Your task to perform on an android device: open app "Google Drive" (install if not already installed) Image 0: 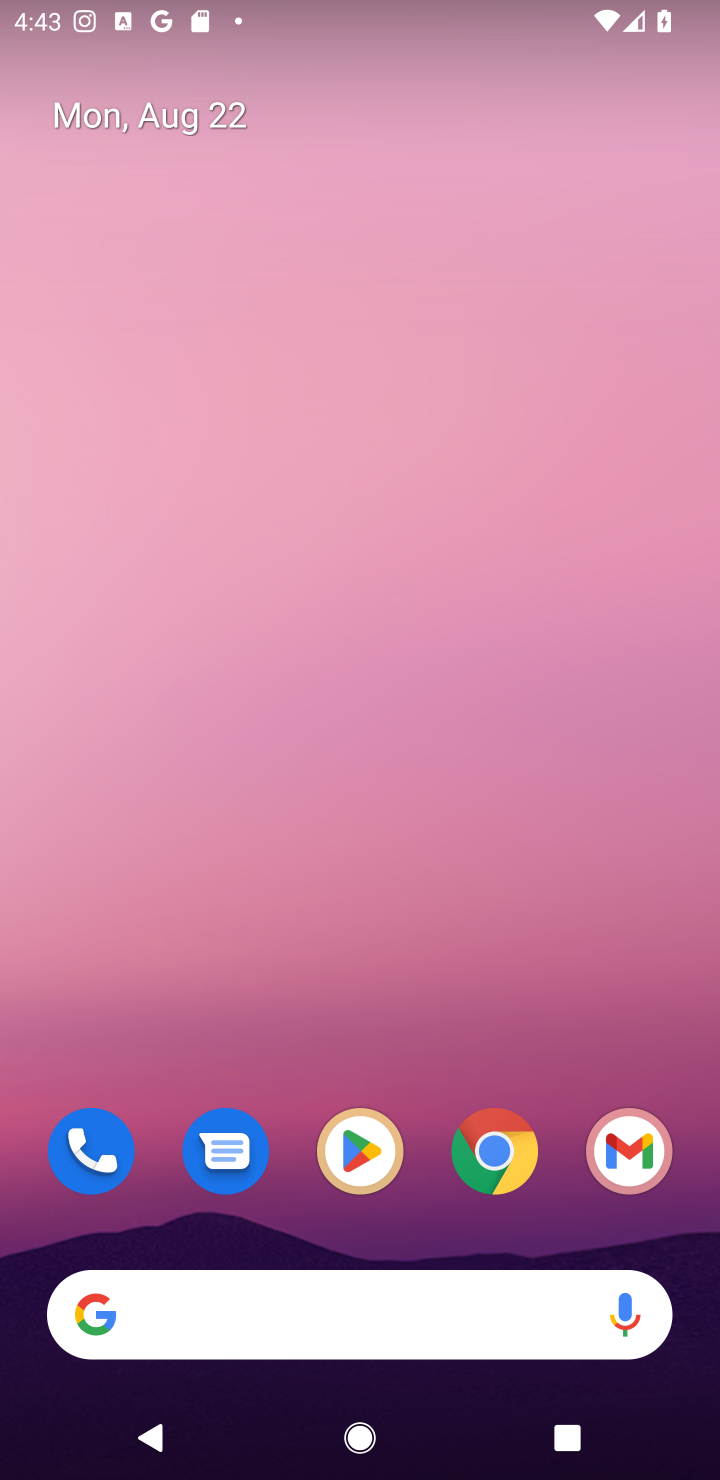
Step 0: press home button
Your task to perform on an android device: open app "Google Drive" (install if not already installed) Image 1: 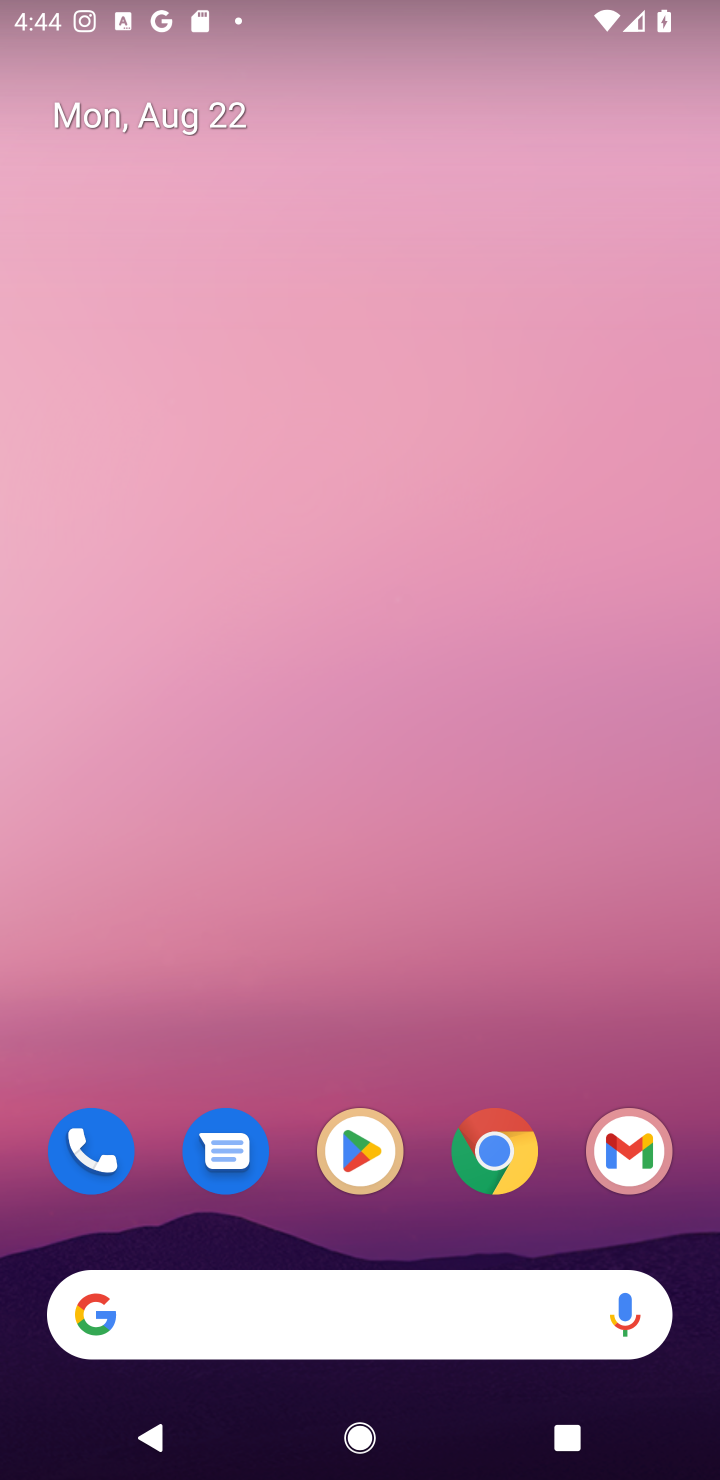
Step 1: click (342, 1157)
Your task to perform on an android device: open app "Google Drive" (install if not already installed) Image 2: 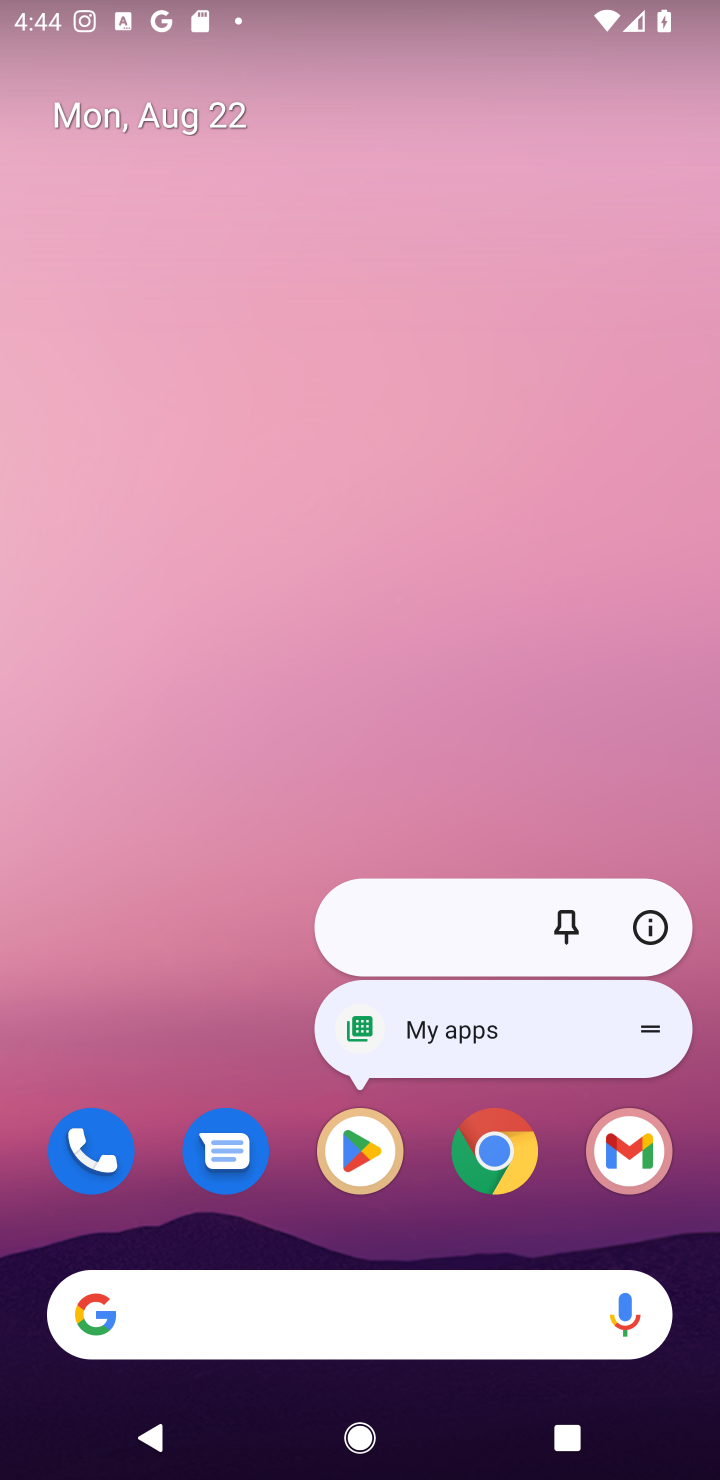
Step 2: click (354, 1155)
Your task to perform on an android device: open app "Google Drive" (install if not already installed) Image 3: 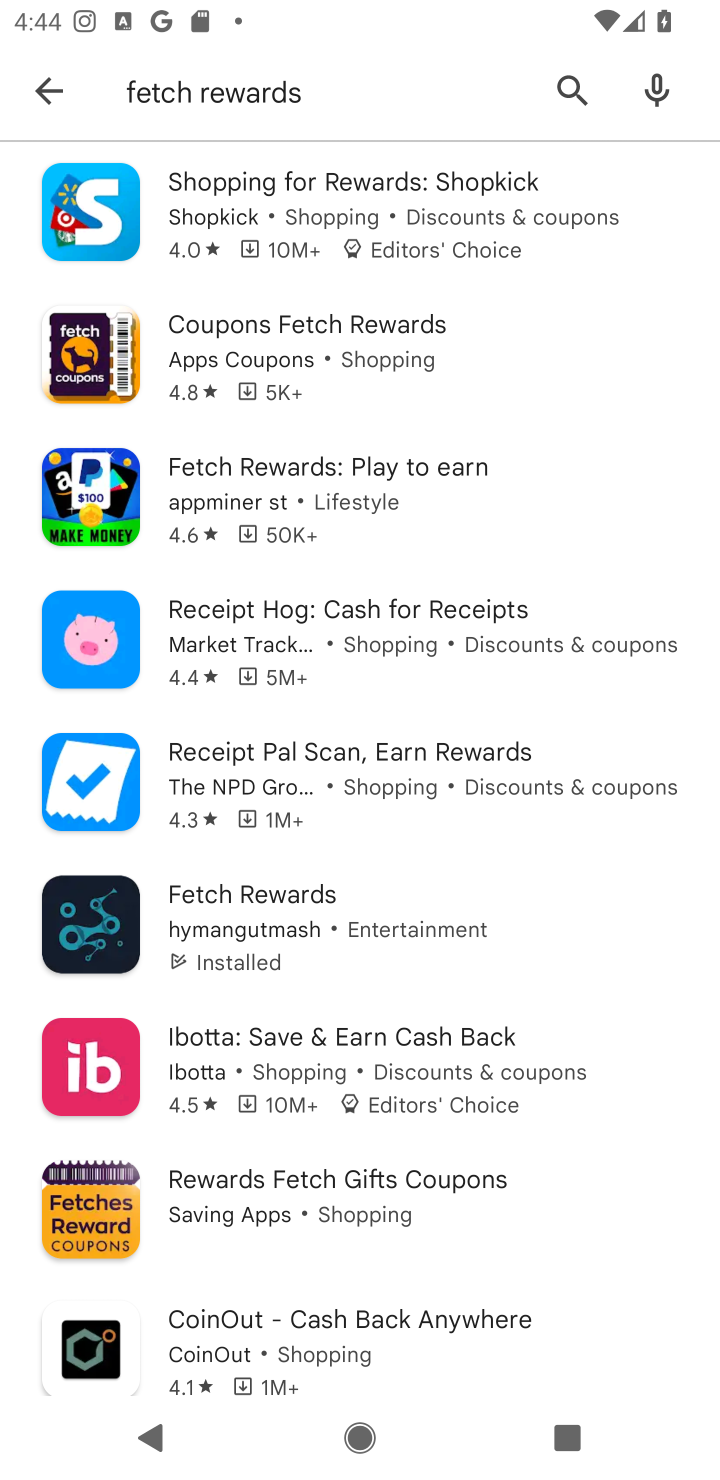
Step 3: click (566, 77)
Your task to perform on an android device: open app "Google Drive" (install if not already installed) Image 4: 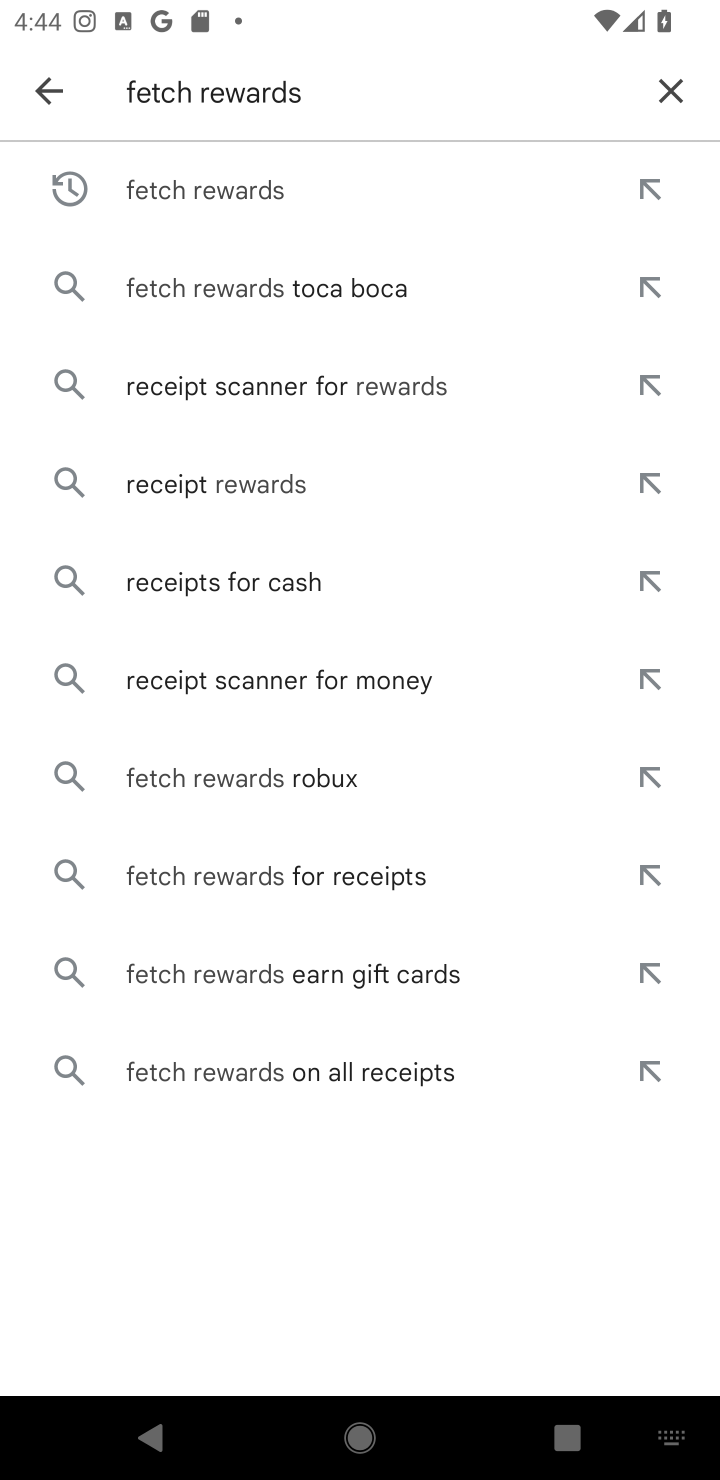
Step 4: click (666, 81)
Your task to perform on an android device: open app "Google Drive" (install if not already installed) Image 5: 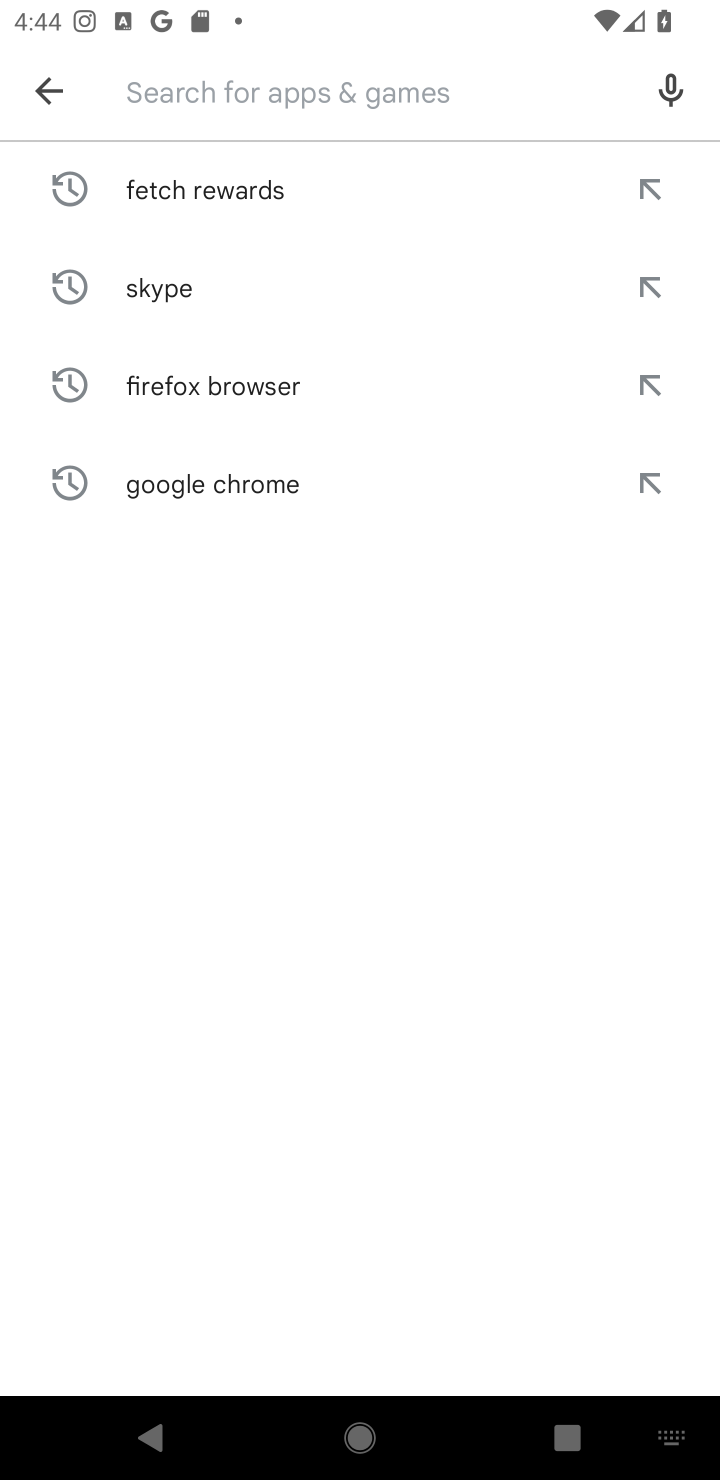
Step 5: type "Google Drive"
Your task to perform on an android device: open app "Google Drive" (install if not already installed) Image 6: 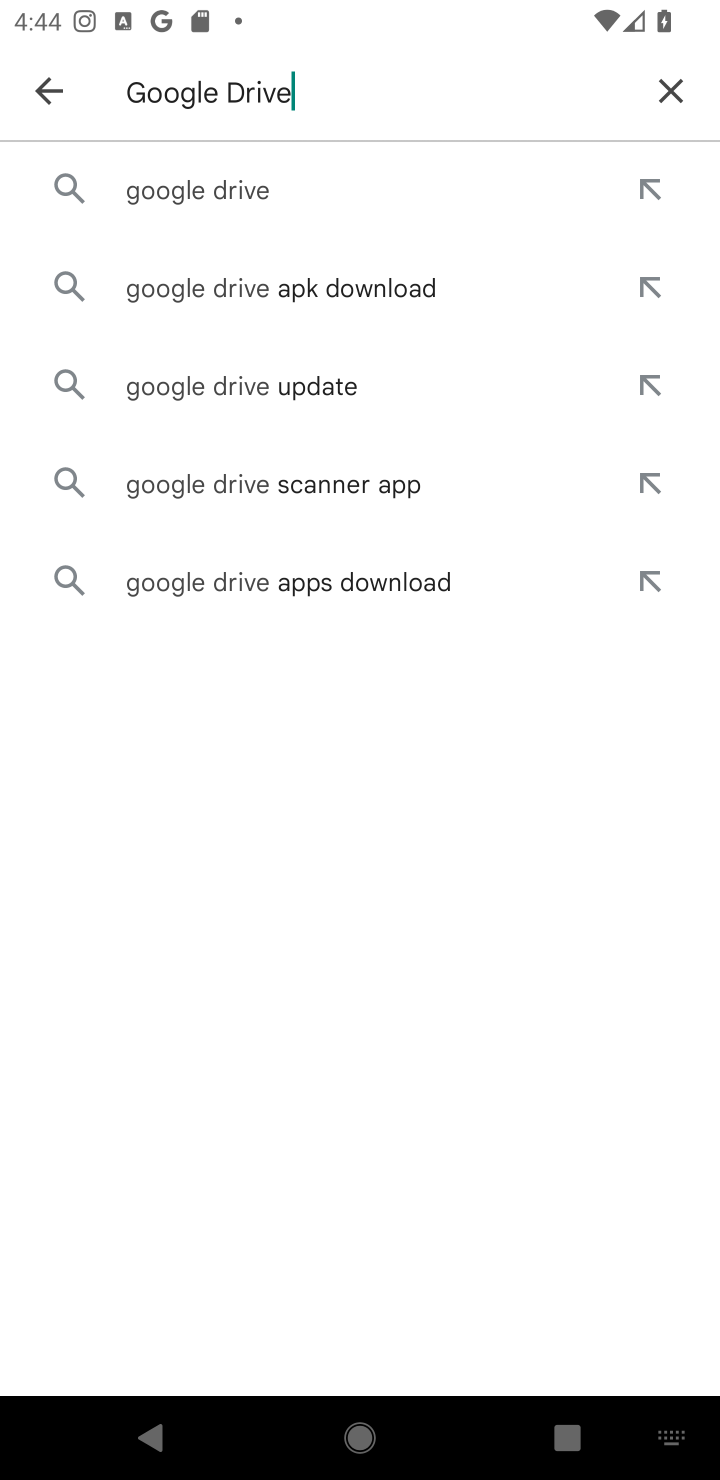
Step 6: click (228, 188)
Your task to perform on an android device: open app "Google Drive" (install if not already installed) Image 7: 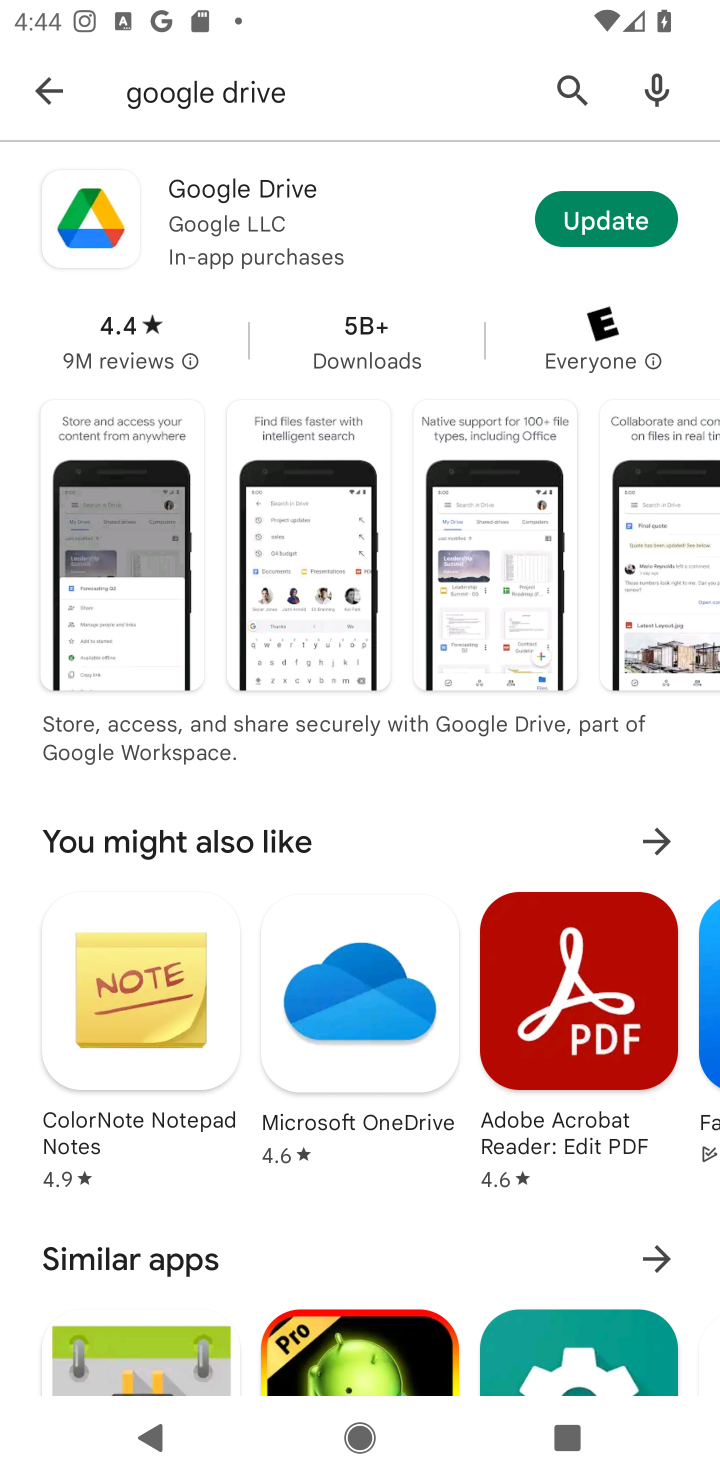
Step 7: click (104, 220)
Your task to perform on an android device: open app "Google Drive" (install if not already installed) Image 8: 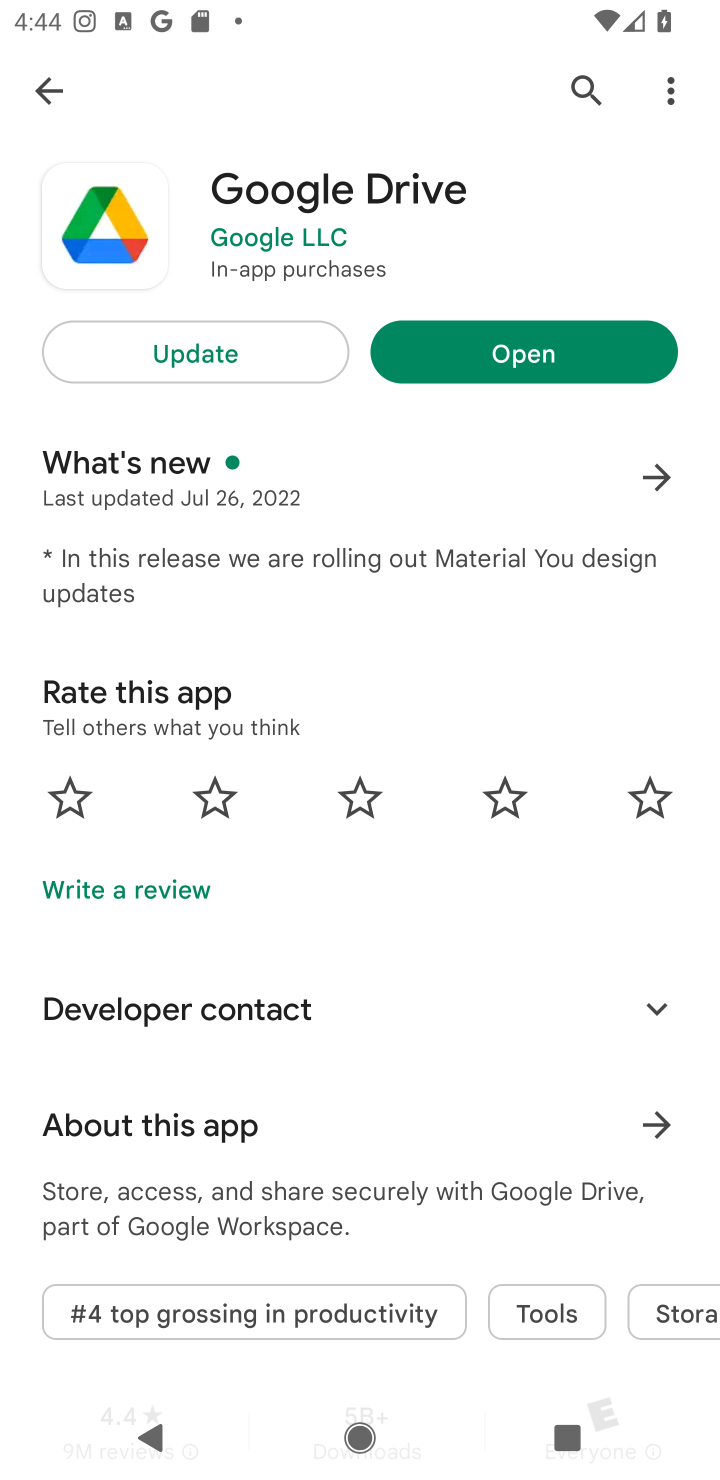
Step 8: click (528, 346)
Your task to perform on an android device: open app "Google Drive" (install if not already installed) Image 9: 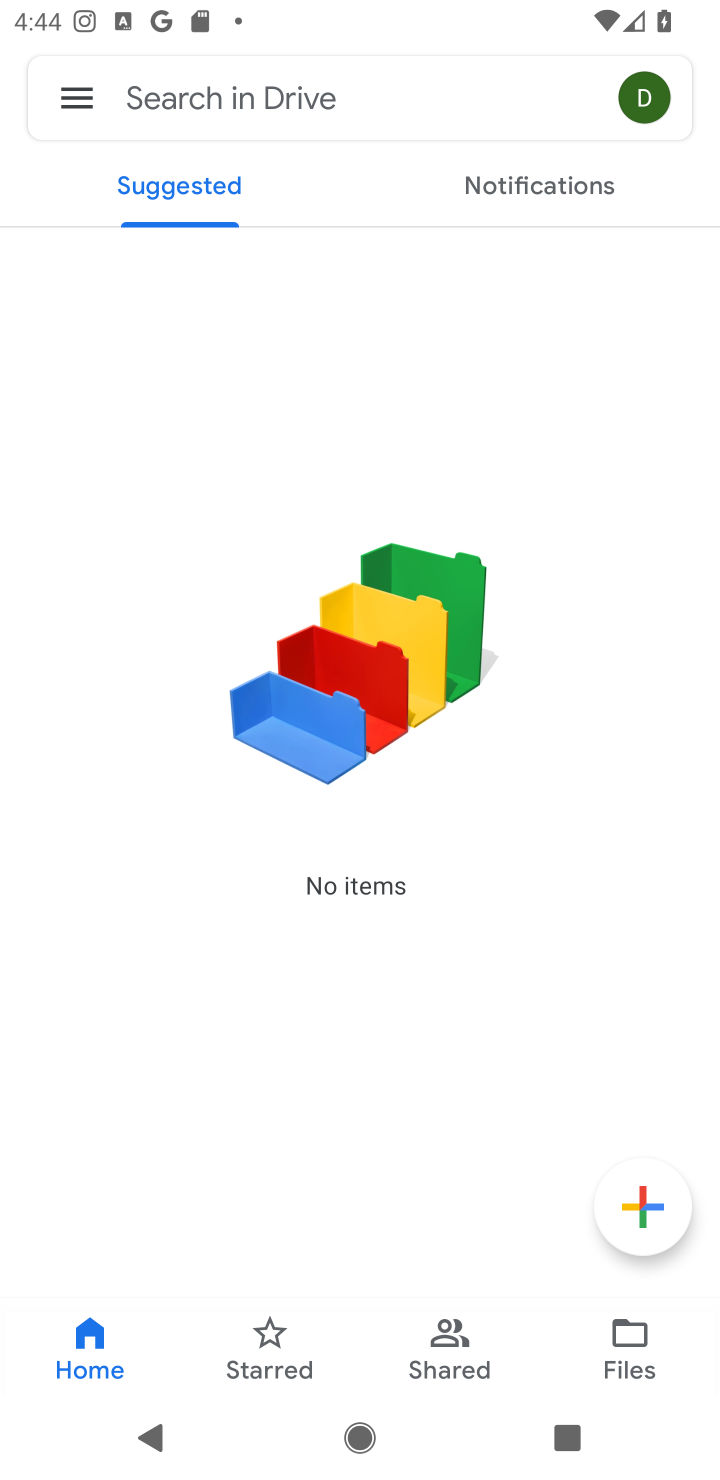
Step 9: task complete